Your task to perform on an android device: Open Maps and search for coffee Image 0: 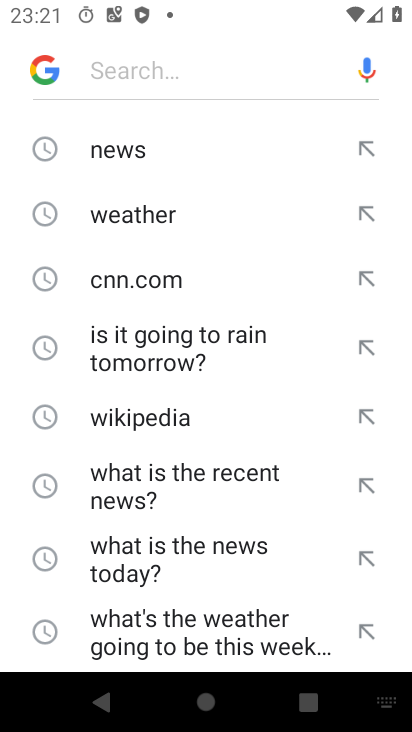
Step 0: drag from (149, 551) to (175, 190)
Your task to perform on an android device: Open Maps and search for coffee Image 1: 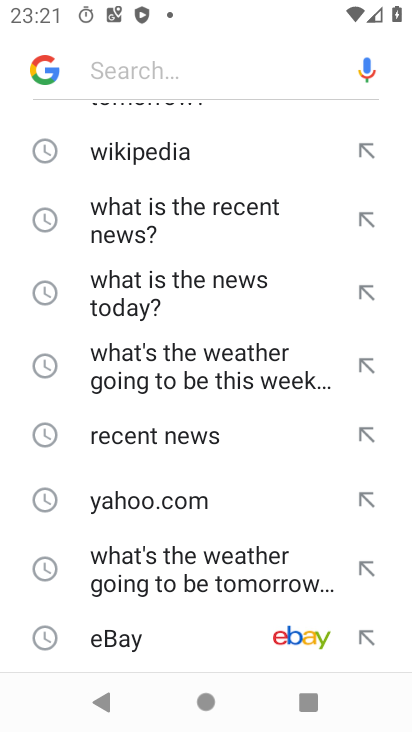
Step 1: drag from (240, 557) to (235, 118)
Your task to perform on an android device: Open Maps and search for coffee Image 2: 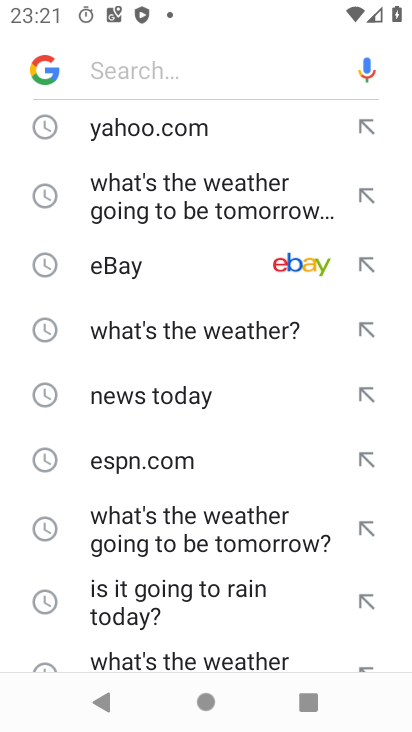
Step 2: drag from (197, 641) to (262, 53)
Your task to perform on an android device: Open Maps and search for coffee Image 3: 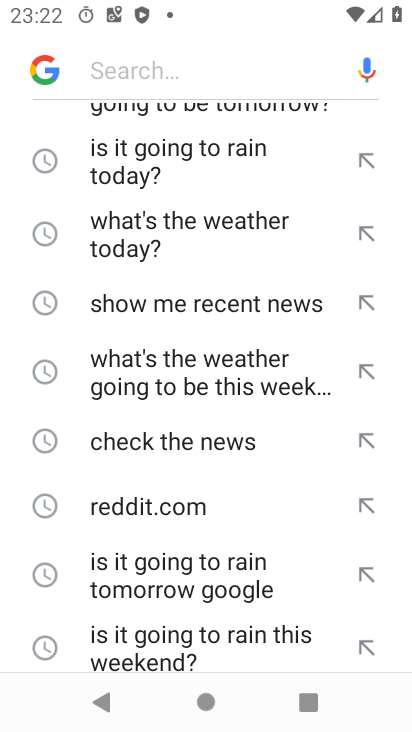
Step 3: drag from (235, 485) to (300, 11)
Your task to perform on an android device: Open Maps and search for coffee Image 4: 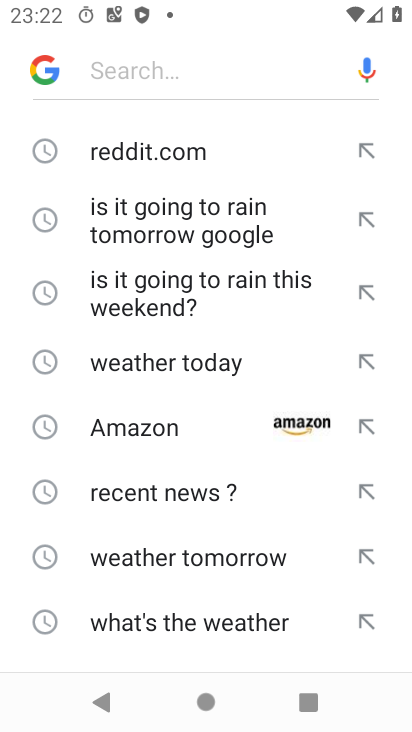
Step 4: click (176, 69)
Your task to perform on an android device: Open Maps and search for coffee Image 5: 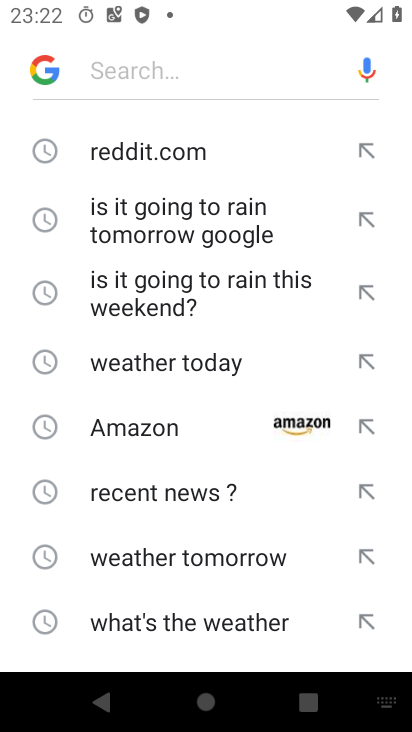
Step 5: press home button
Your task to perform on an android device: Open Maps and search for coffee Image 6: 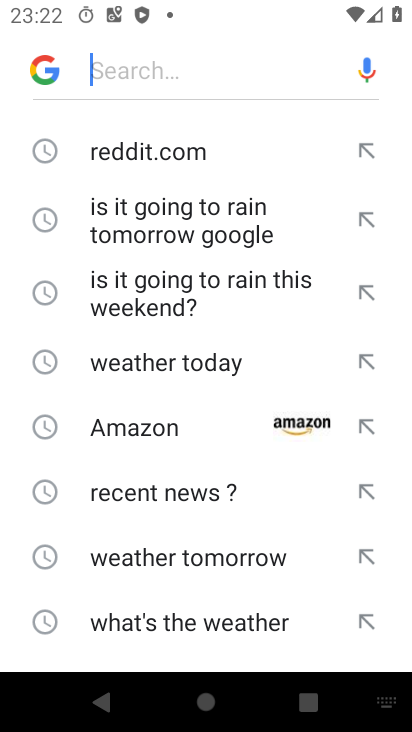
Step 6: press home button
Your task to perform on an android device: Open Maps and search for coffee Image 7: 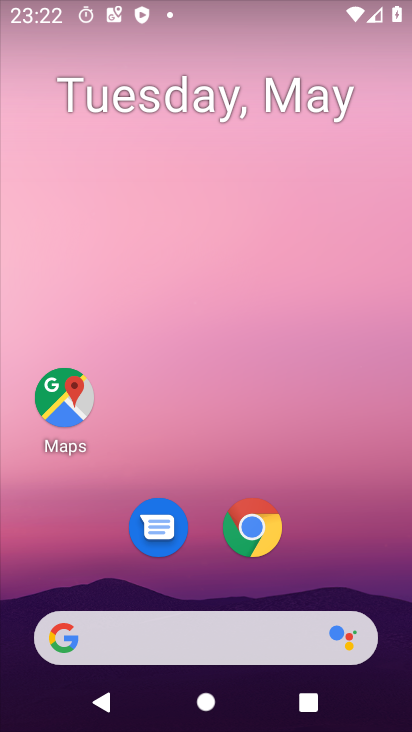
Step 7: drag from (224, 575) to (235, 65)
Your task to perform on an android device: Open Maps and search for coffee Image 8: 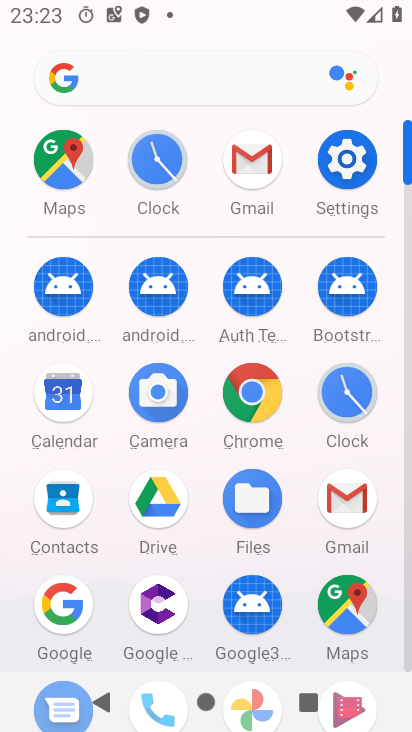
Step 8: click (345, 598)
Your task to perform on an android device: Open Maps and search for coffee Image 9: 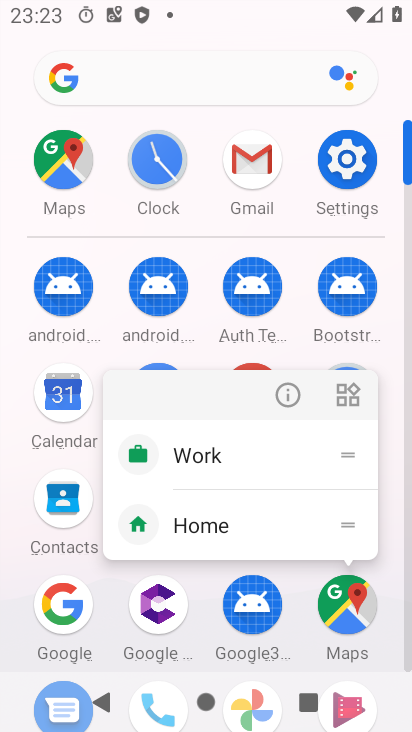
Step 9: click (296, 393)
Your task to perform on an android device: Open Maps and search for coffee Image 10: 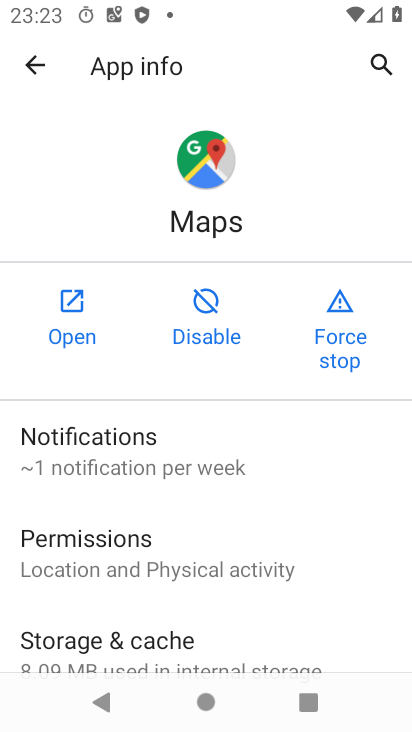
Step 10: click (59, 318)
Your task to perform on an android device: Open Maps and search for coffee Image 11: 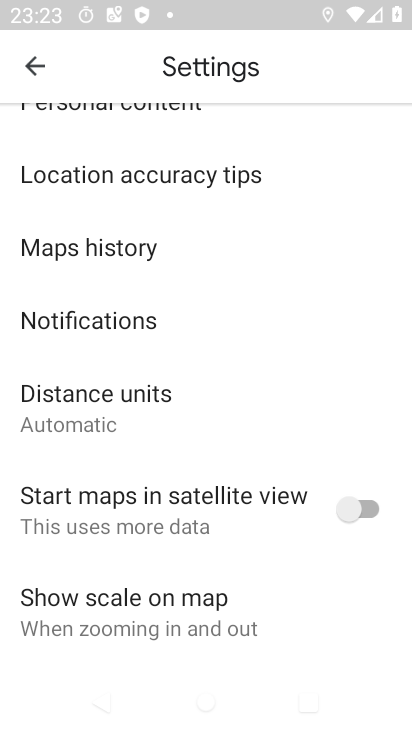
Step 11: drag from (125, 209) to (217, 729)
Your task to perform on an android device: Open Maps and search for coffee Image 12: 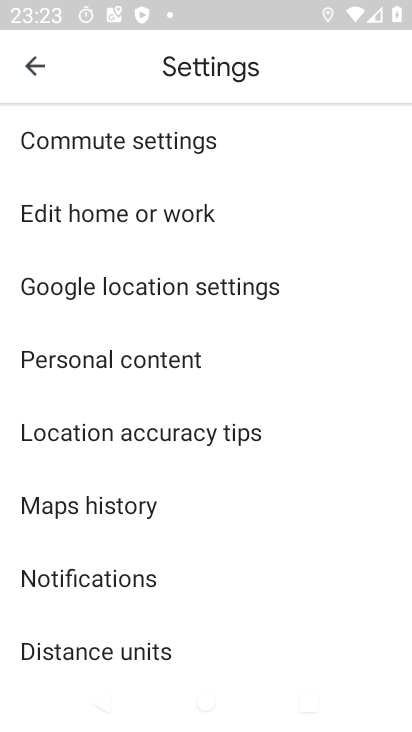
Step 12: drag from (196, 175) to (252, 674)
Your task to perform on an android device: Open Maps and search for coffee Image 13: 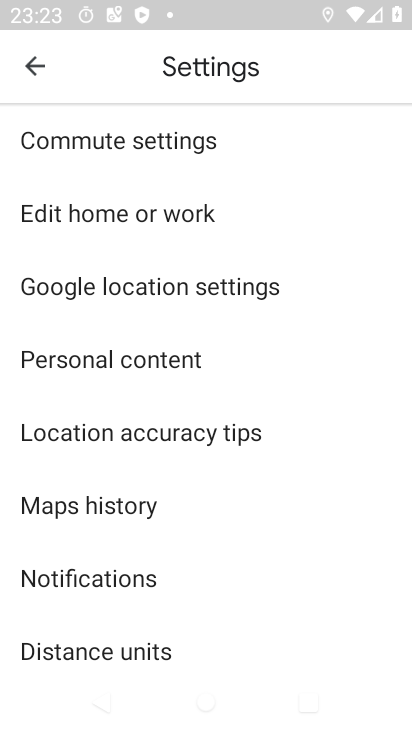
Step 13: drag from (216, 244) to (330, 714)
Your task to perform on an android device: Open Maps and search for coffee Image 14: 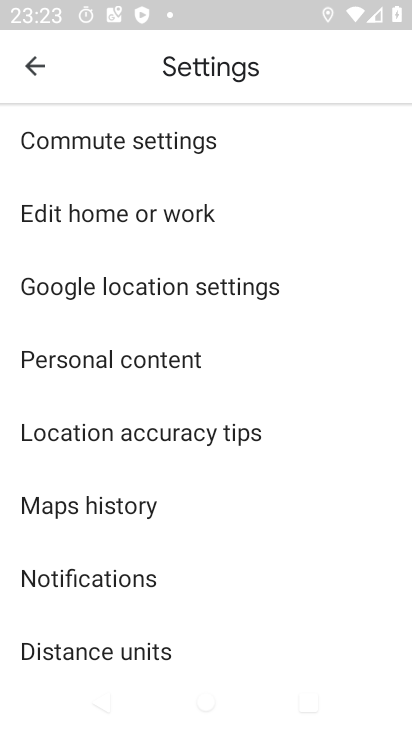
Step 14: drag from (119, 266) to (191, 627)
Your task to perform on an android device: Open Maps and search for coffee Image 15: 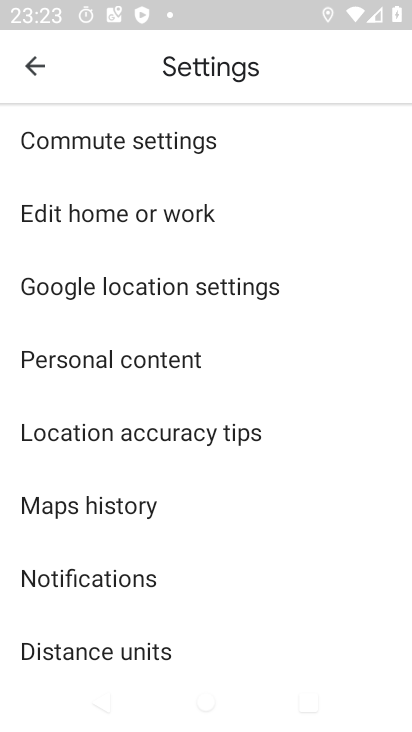
Step 15: drag from (121, 505) to (180, 85)
Your task to perform on an android device: Open Maps and search for coffee Image 16: 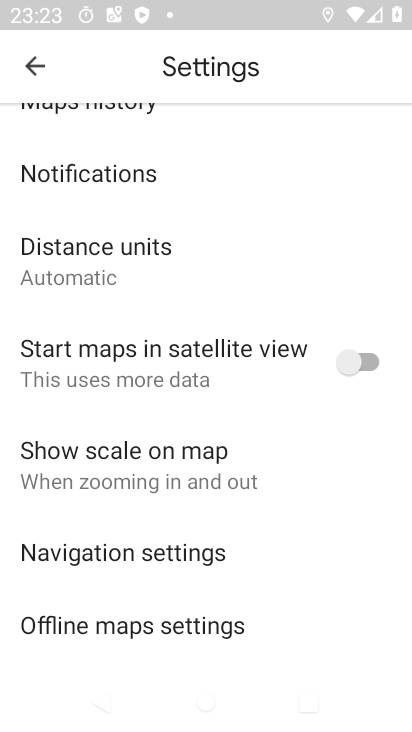
Step 16: click (34, 72)
Your task to perform on an android device: Open Maps and search for coffee Image 17: 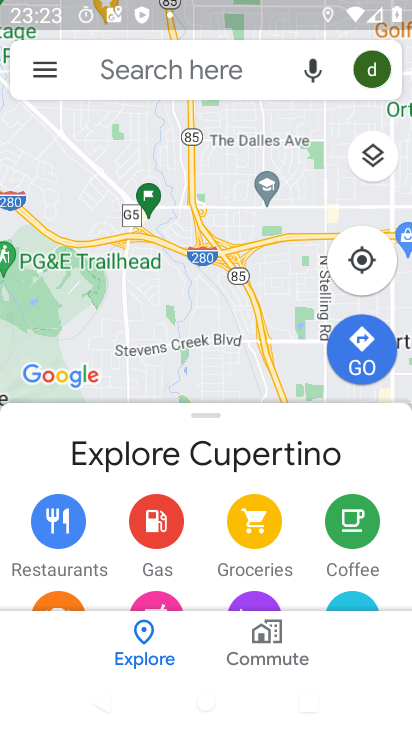
Step 17: click (227, 70)
Your task to perform on an android device: Open Maps and search for coffee Image 18: 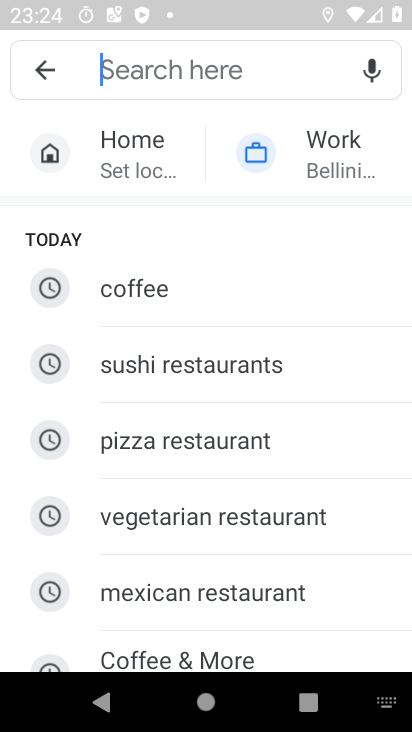
Step 18: type "coffee"
Your task to perform on an android device: Open Maps and search for coffee Image 19: 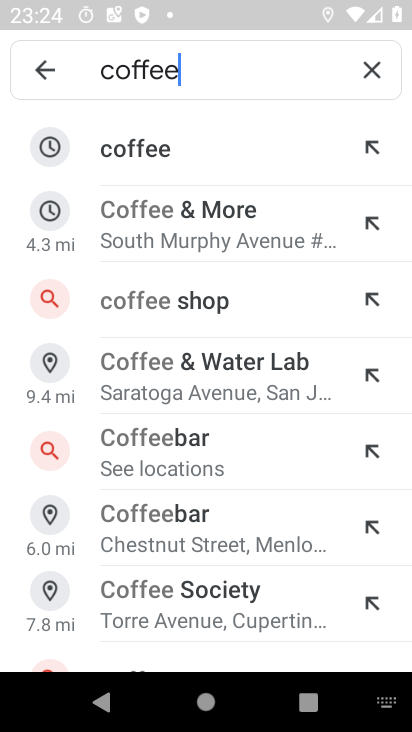
Step 19: click (121, 139)
Your task to perform on an android device: Open Maps and search for coffee Image 20: 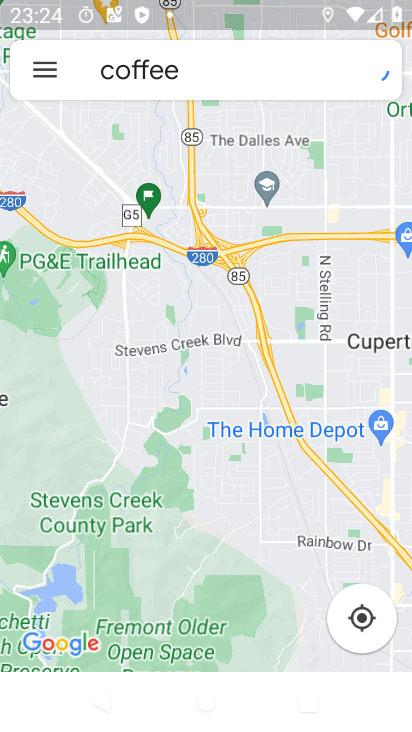
Step 20: drag from (214, 531) to (207, 231)
Your task to perform on an android device: Open Maps and search for coffee Image 21: 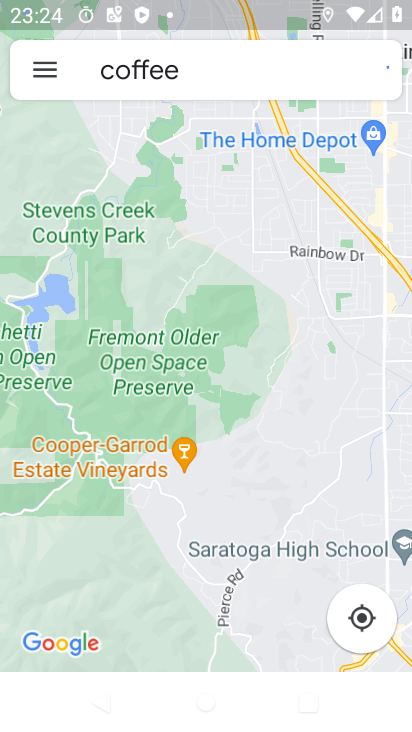
Step 21: drag from (191, 409) to (192, 223)
Your task to perform on an android device: Open Maps and search for coffee Image 22: 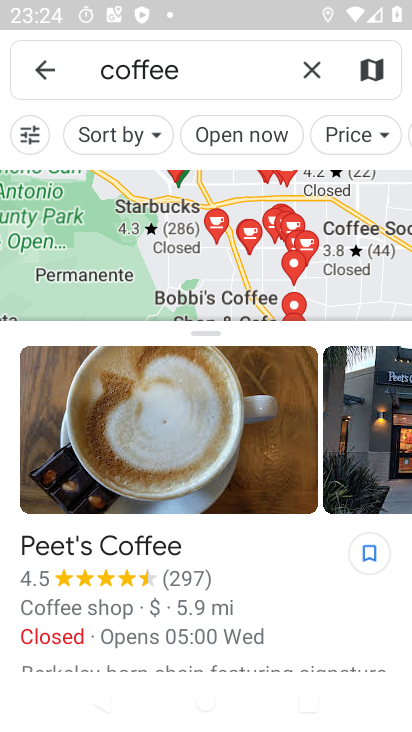
Step 22: drag from (272, 606) to (251, 222)
Your task to perform on an android device: Open Maps and search for coffee Image 23: 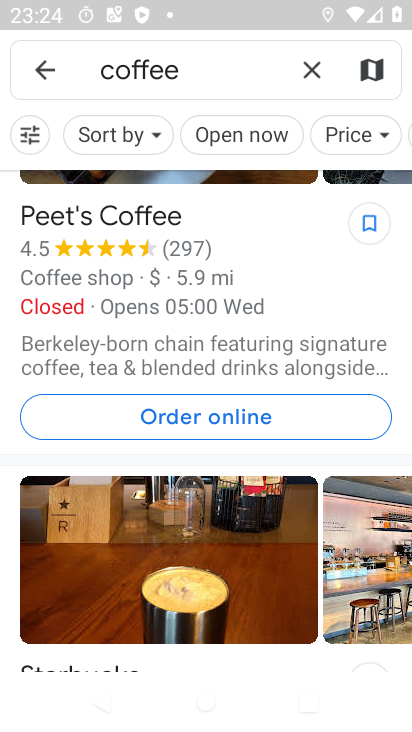
Step 23: drag from (207, 248) to (220, 726)
Your task to perform on an android device: Open Maps and search for coffee Image 24: 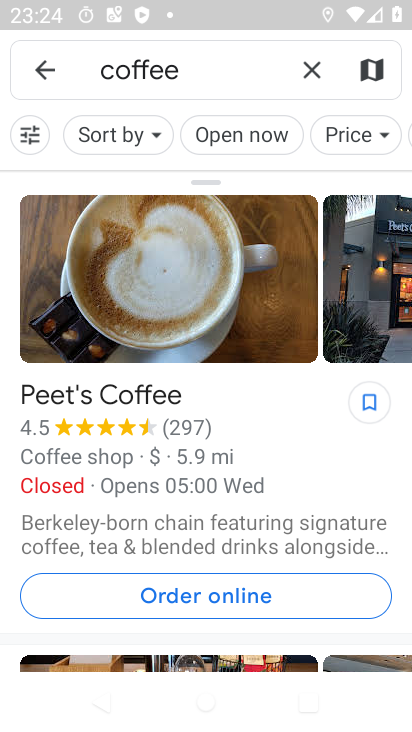
Step 24: drag from (265, 407) to (336, 674)
Your task to perform on an android device: Open Maps and search for coffee Image 25: 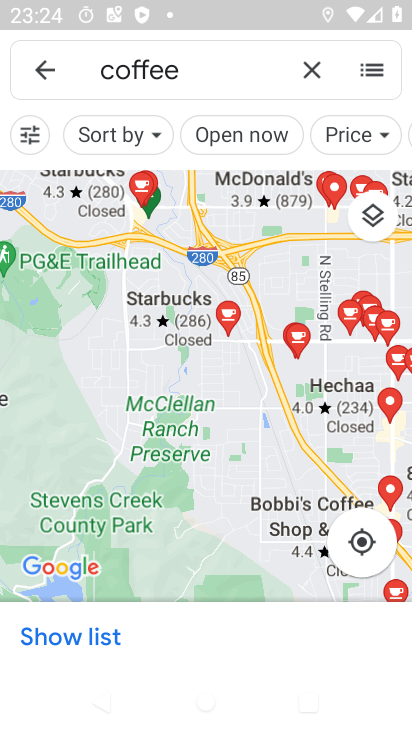
Step 25: drag from (202, 593) to (242, 187)
Your task to perform on an android device: Open Maps and search for coffee Image 26: 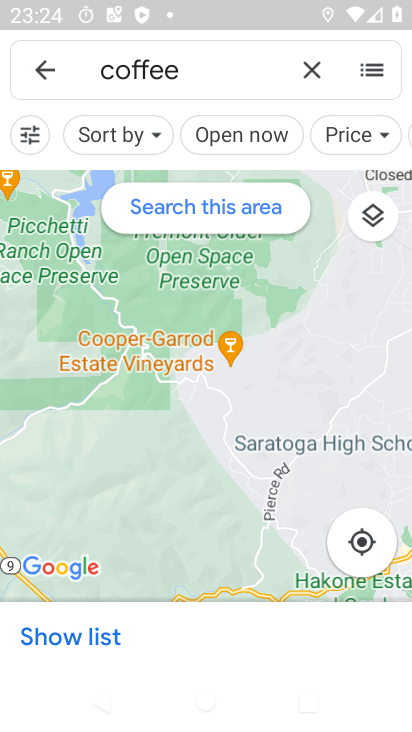
Step 26: drag from (204, 554) to (220, 313)
Your task to perform on an android device: Open Maps and search for coffee Image 27: 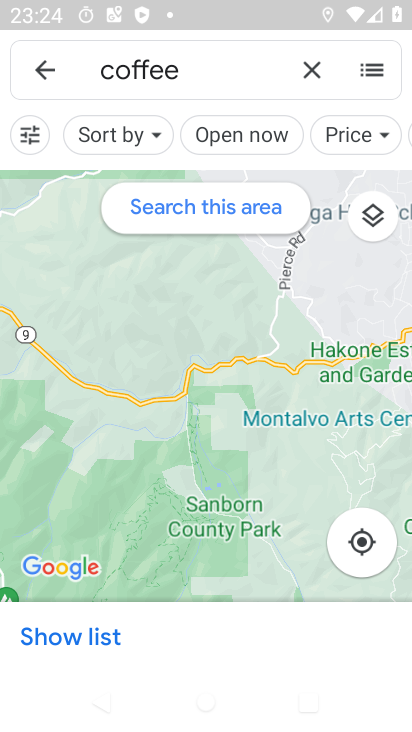
Step 27: drag from (186, 618) to (220, 365)
Your task to perform on an android device: Open Maps and search for coffee Image 28: 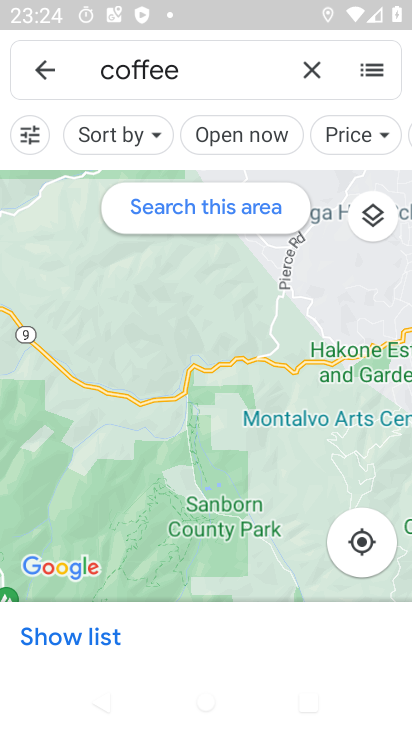
Step 28: drag from (231, 655) to (255, 423)
Your task to perform on an android device: Open Maps and search for coffee Image 29: 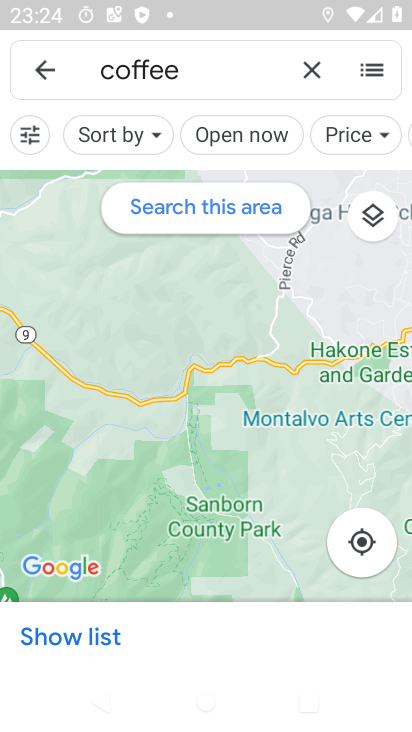
Step 29: drag from (233, 500) to (231, 233)
Your task to perform on an android device: Open Maps and search for coffee Image 30: 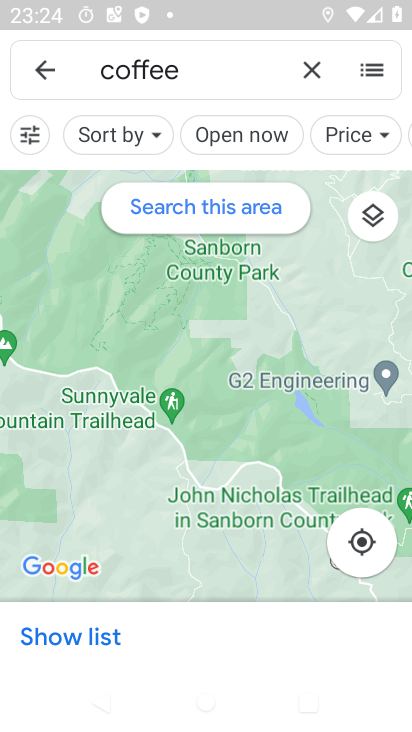
Step 30: drag from (211, 248) to (20, 501)
Your task to perform on an android device: Open Maps and search for coffee Image 31: 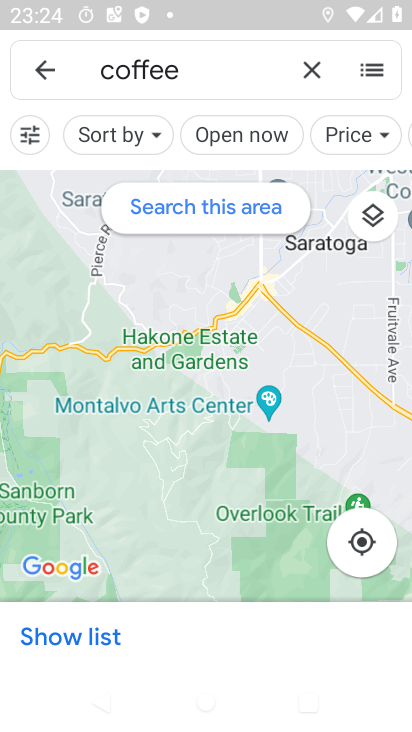
Step 31: drag from (220, 360) to (0, 483)
Your task to perform on an android device: Open Maps and search for coffee Image 32: 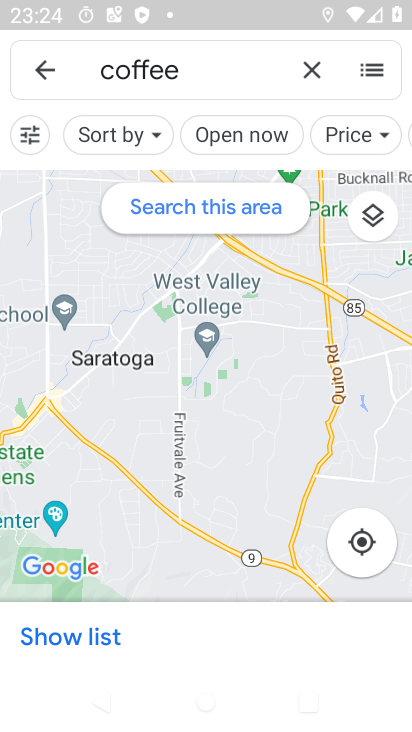
Step 32: drag from (82, 468) to (8, 400)
Your task to perform on an android device: Open Maps and search for coffee Image 33: 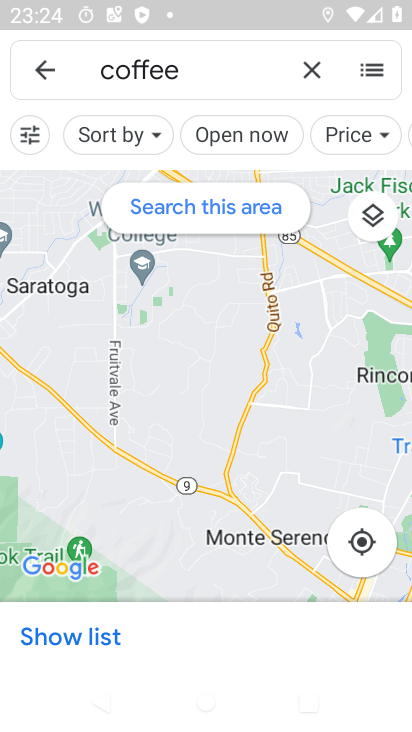
Step 33: drag from (65, 480) to (70, 720)
Your task to perform on an android device: Open Maps and search for coffee Image 34: 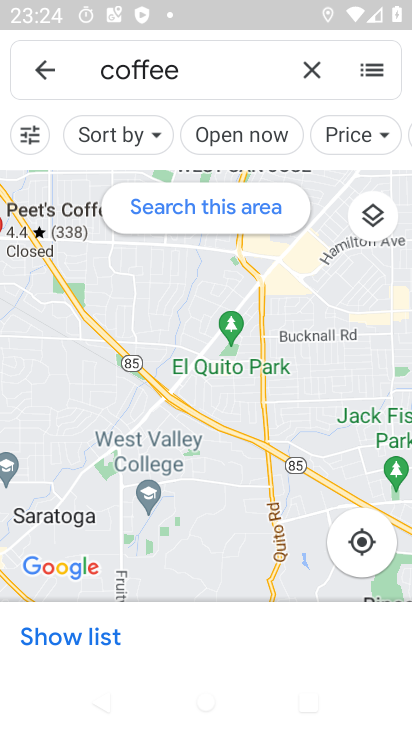
Step 34: drag from (283, 262) to (220, 658)
Your task to perform on an android device: Open Maps and search for coffee Image 35: 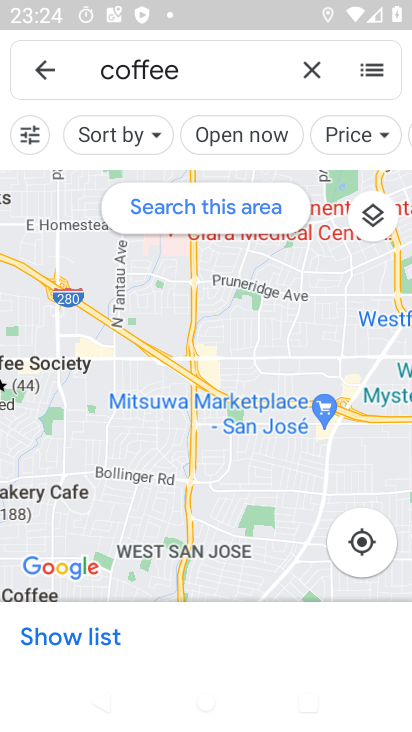
Step 35: drag from (204, 293) to (291, 674)
Your task to perform on an android device: Open Maps and search for coffee Image 36: 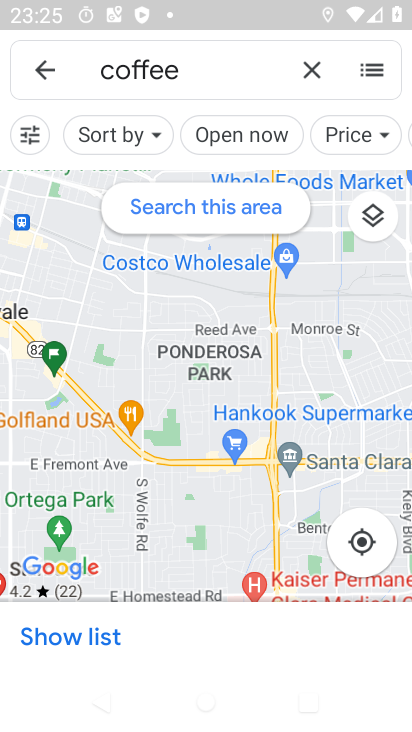
Step 36: click (227, 68)
Your task to perform on an android device: Open Maps and search for coffee Image 37: 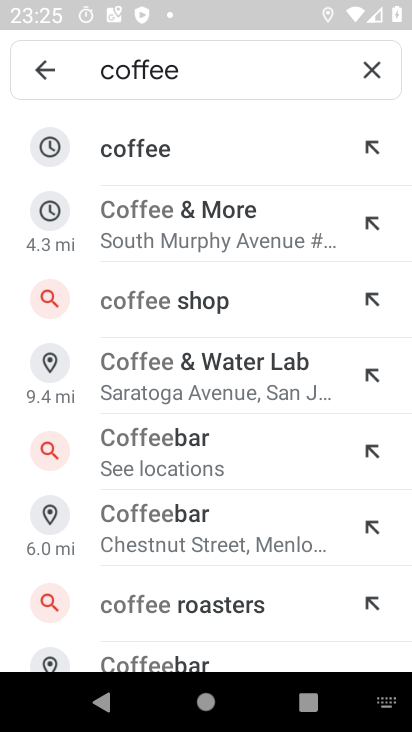
Step 37: click (198, 152)
Your task to perform on an android device: Open Maps and search for coffee Image 38: 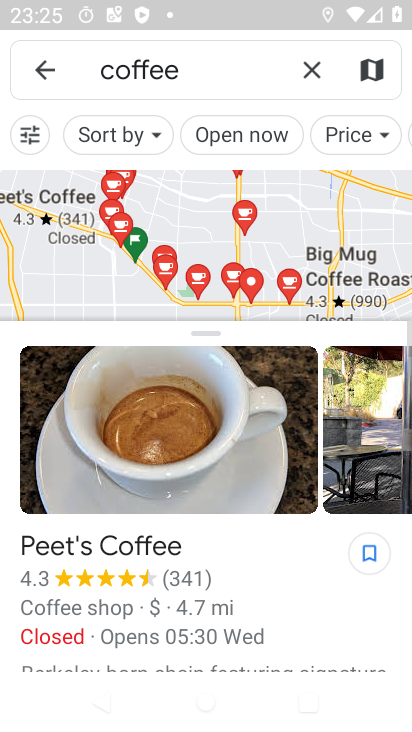
Step 38: task complete